Your task to perform on an android device: Toggle the flashlight Image 0: 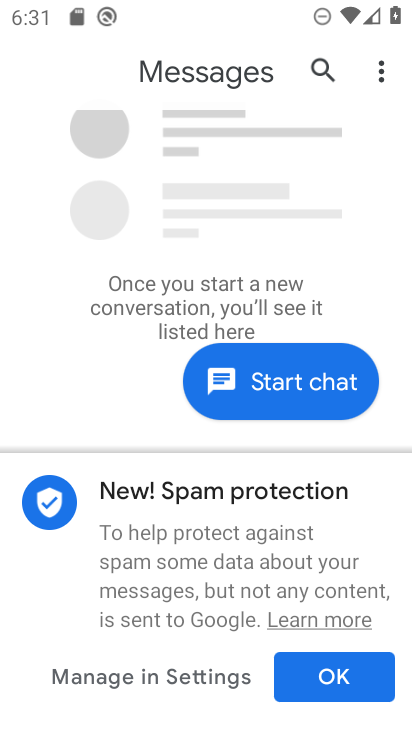
Step 0: press home button
Your task to perform on an android device: Toggle the flashlight Image 1: 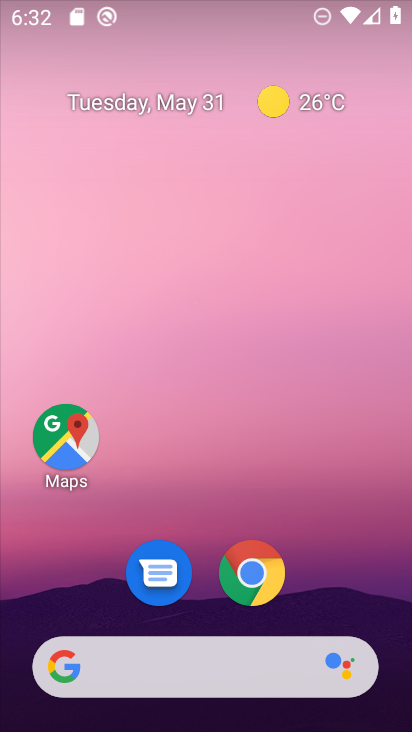
Step 1: drag from (380, 579) to (277, 83)
Your task to perform on an android device: Toggle the flashlight Image 2: 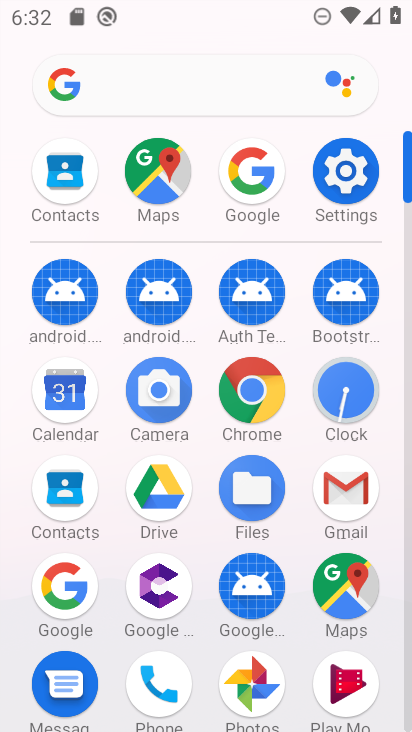
Step 2: click (333, 192)
Your task to perform on an android device: Toggle the flashlight Image 3: 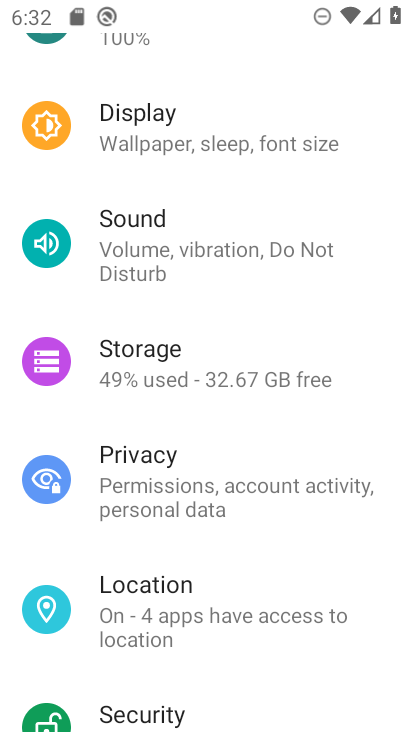
Step 3: task complete